Your task to perform on an android device: Go to display settings Image 0: 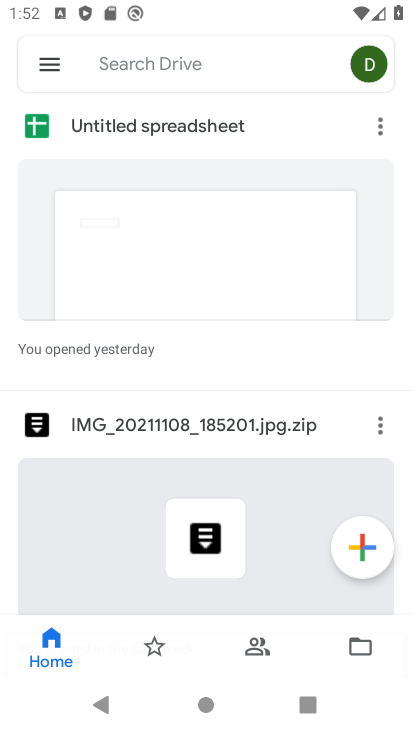
Step 0: press home button
Your task to perform on an android device: Go to display settings Image 1: 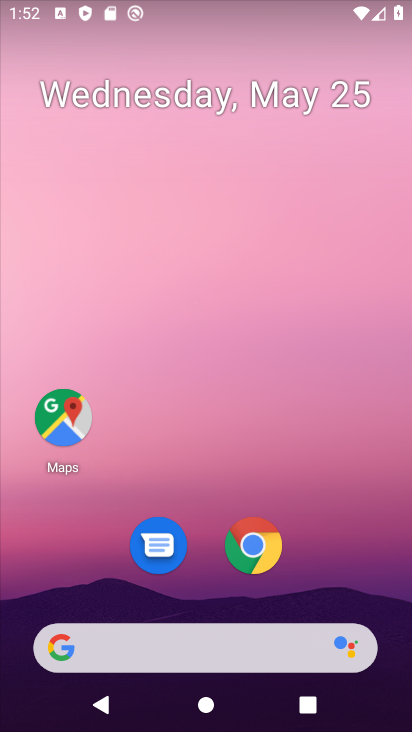
Step 1: drag from (359, 570) to (334, 40)
Your task to perform on an android device: Go to display settings Image 2: 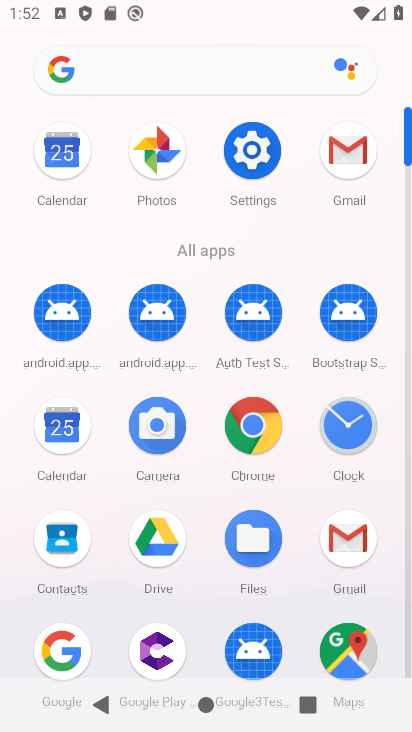
Step 2: click (261, 179)
Your task to perform on an android device: Go to display settings Image 3: 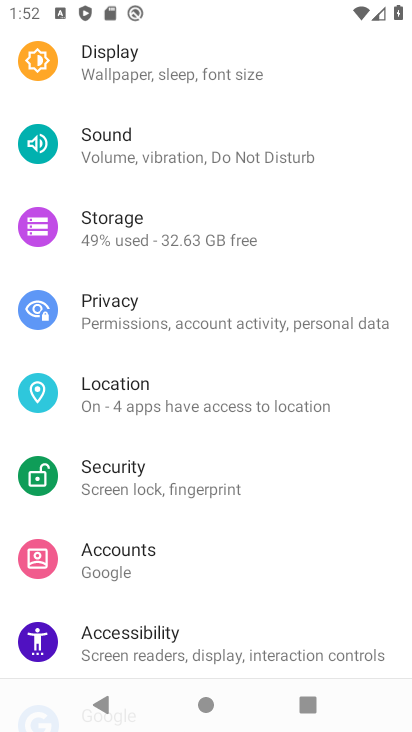
Step 3: click (167, 73)
Your task to perform on an android device: Go to display settings Image 4: 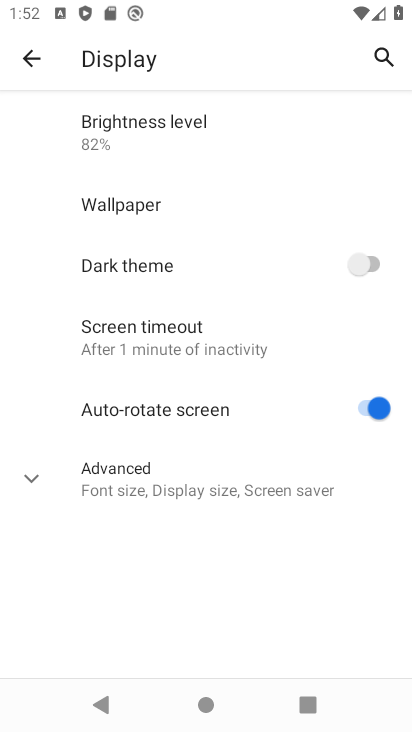
Step 4: task complete